Your task to perform on an android device: Open ESPN.com Image 0: 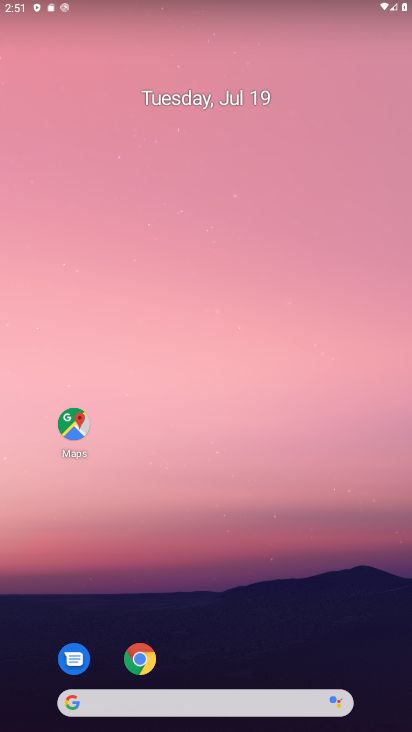
Step 0: click (145, 658)
Your task to perform on an android device: Open ESPN.com Image 1: 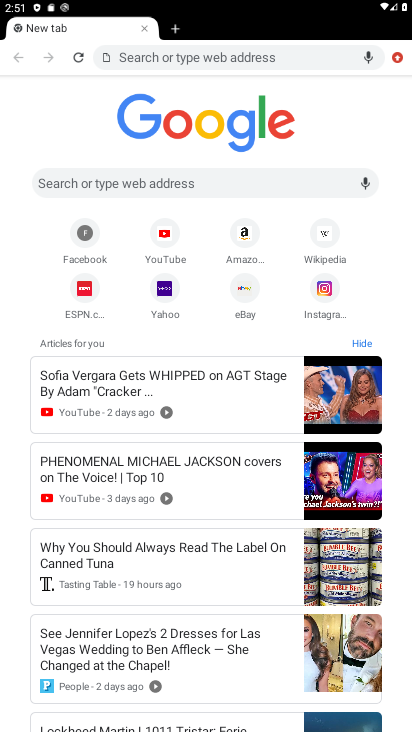
Step 1: click (83, 286)
Your task to perform on an android device: Open ESPN.com Image 2: 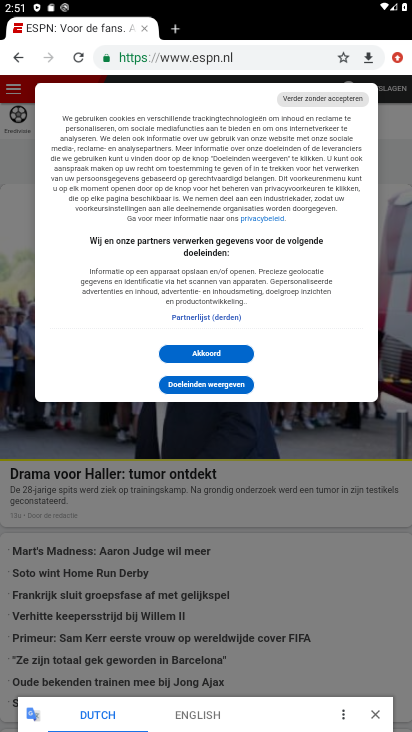
Step 2: task complete